Your task to perform on an android device: Open Google Chrome and click the shortcut for Amazon.com Image 0: 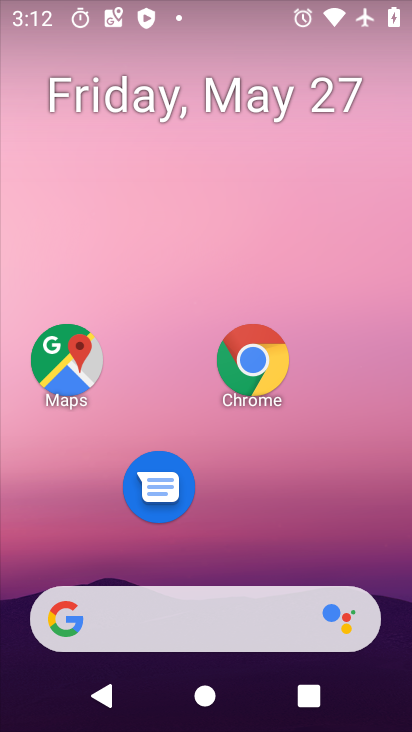
Step 0: drag from (246, 529) to (294, 118)
Your task to perform on an android device: Open Google Chrome and click the shortcut for Amazon.com Image 1: 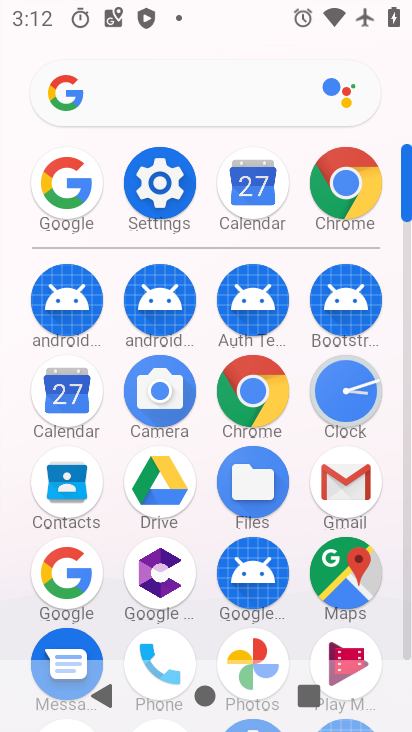
Step 1: click (254, 385)
Your task to perform on an android device: Open Google Chrome and click the shortcut for Amazon.com Image 2: 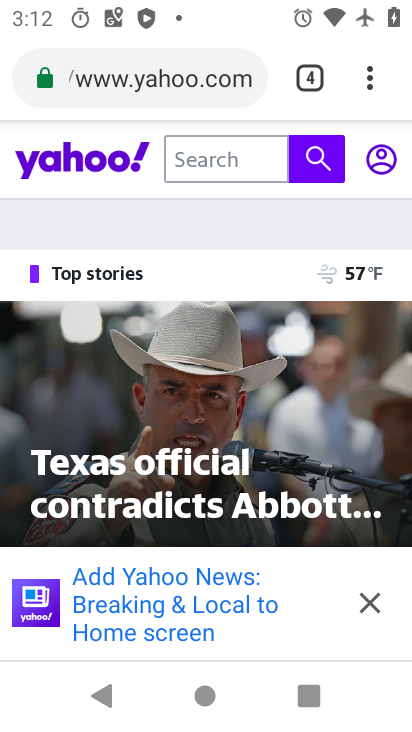
Step 2: press back button
Your task to perform on an android device: Open Google Chrome and click the shortcut for Amazon.com Image 3: 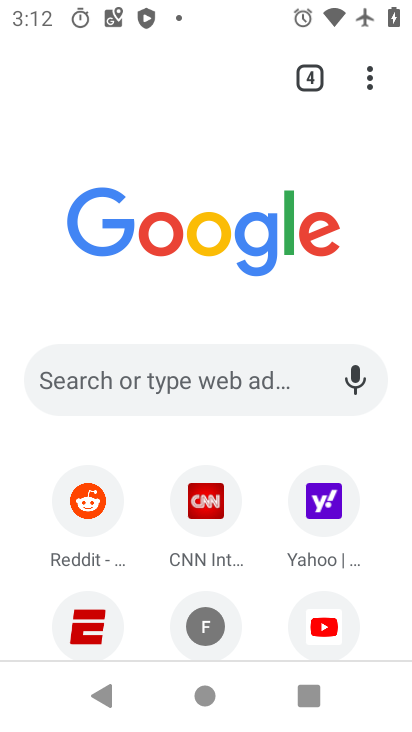
Step 3: drag from (265, 559) to (263, 313)
Your task to perform on an android device: Open Google Chrome and click the shortcut for Amazon.com Image 4: 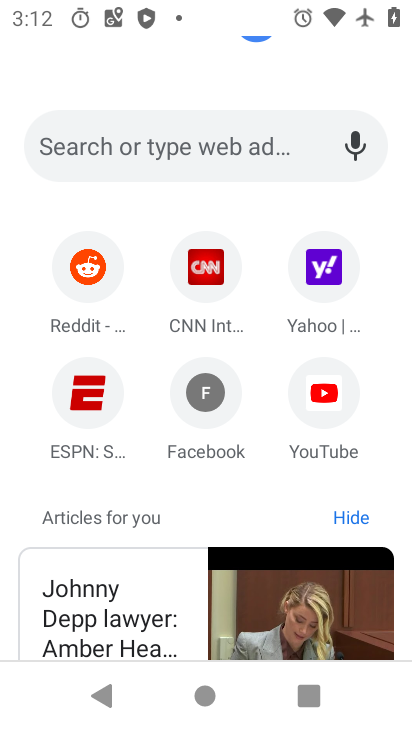
Step 4: click (210, 140)
Your task to perform on an android device: Open Google Chrome and click the shortcut for Amazon.com Image 5: 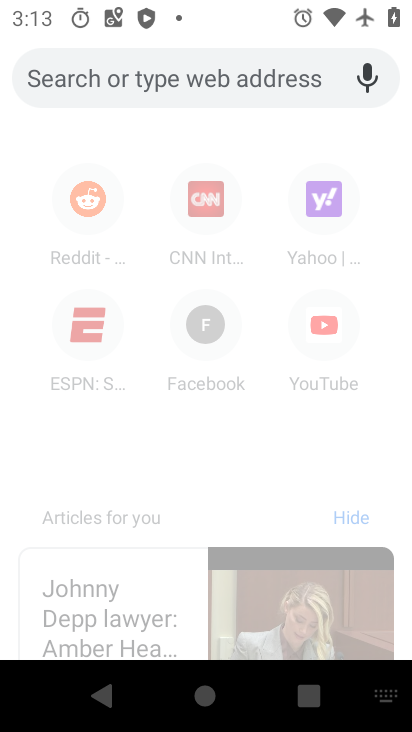
Step 5: click (122, 153)
Your task to perform on an android device: Open Google Chrome and click the shortcut for Amazon.com Image 6: 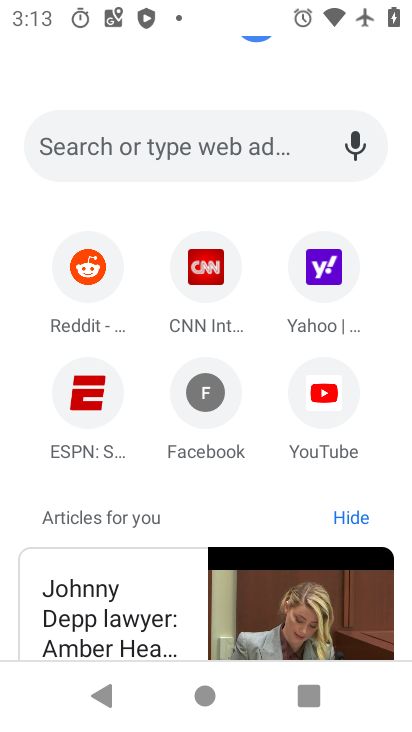
Step 6: task complete